Your task to perform on an android device: turn on airplane mode Image 0: 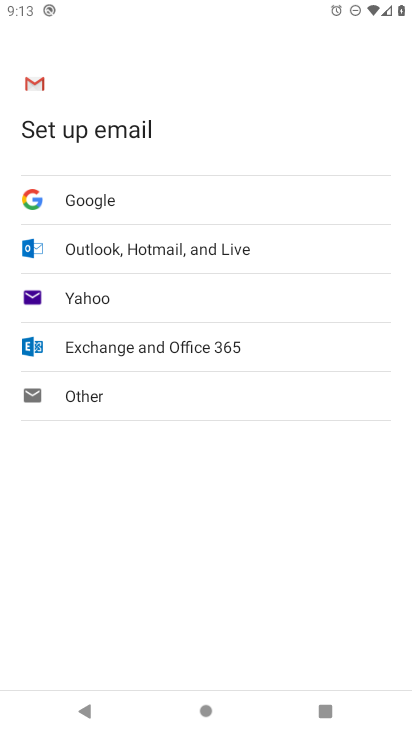
Step 0: press home button
Your task to perform on an android device: turn on airplane mode Image 1: 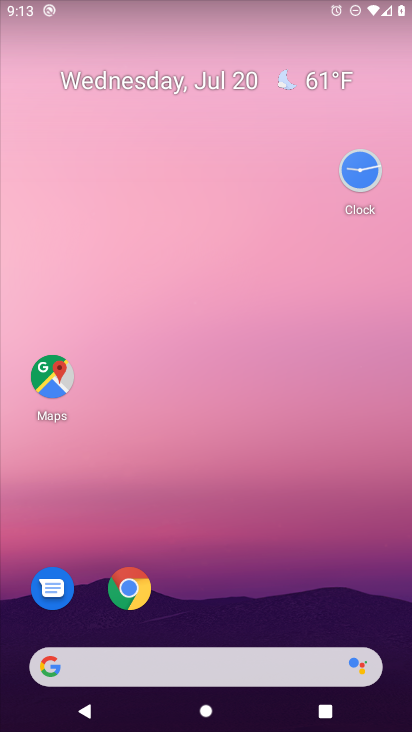
Step 1: drag from (50, 653) to (272, 8)
Your task to perform on an android device: turn on airplane mode Image 2: 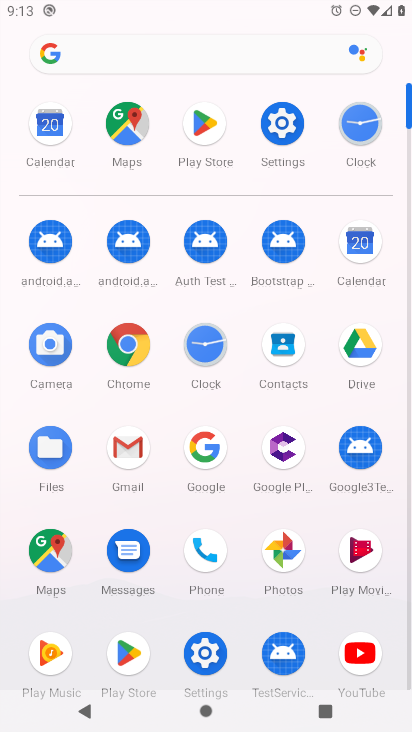
Step 2: click (202, 659)
Your task to perform on an android device: turn on airplane mode Image 3: 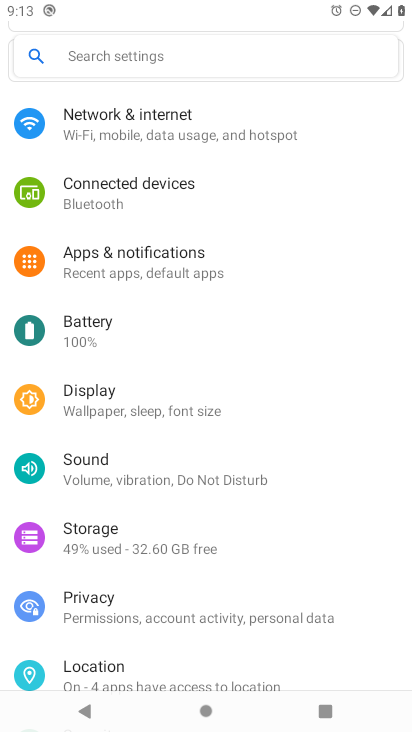
Step 3: click (144, 124)
Your task to perform on an android device: turn on airplane mode Image 4: 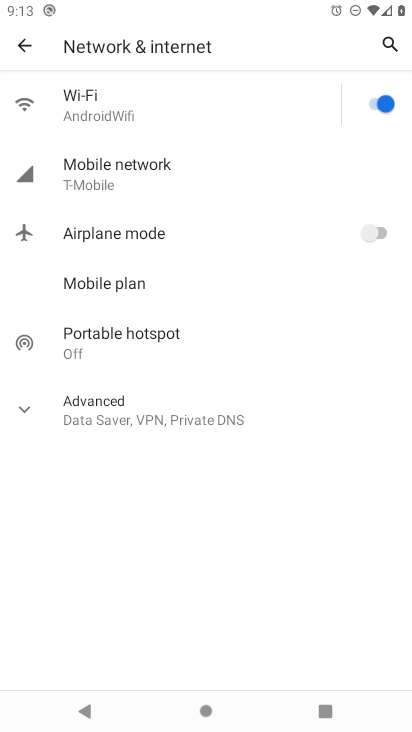
Step 4: click (369, 233)
Your task to perform on an android device: turn on airplane mode Image 5: 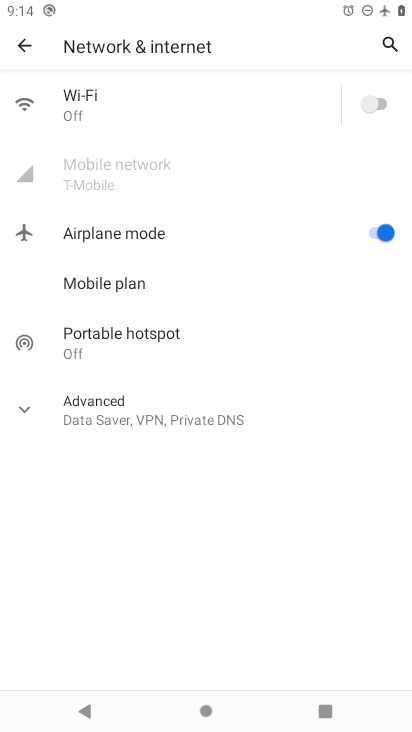
Step 5: task complete